Your task to perform on an android device: change timer sound Image 0: 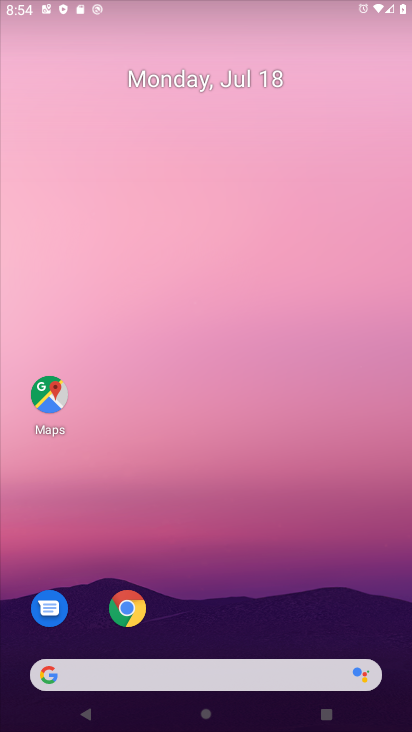
Step 0: press home button
Your task to perform on an android device: change timer sound Image 1: 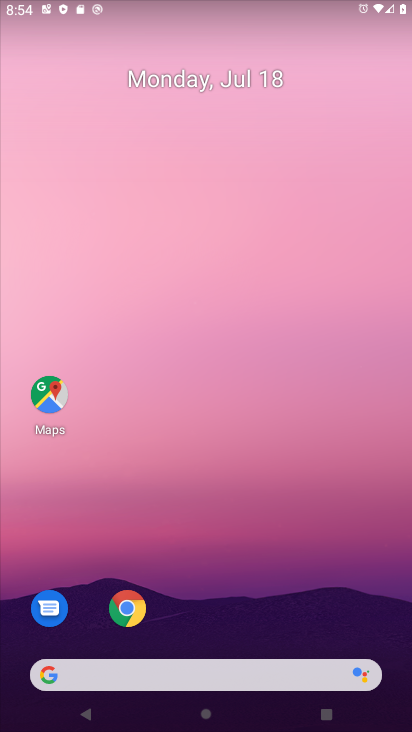
Step 1: drag from (243, 726) to (243, 243)
Your task to perform on an android device: change timer sound Image 2: 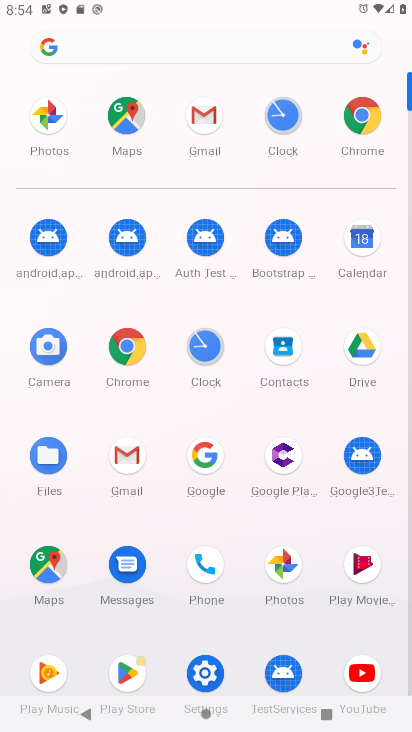
Step 2: click (202, 355)
Your task to perform on an android device: change timer sound Image 3: 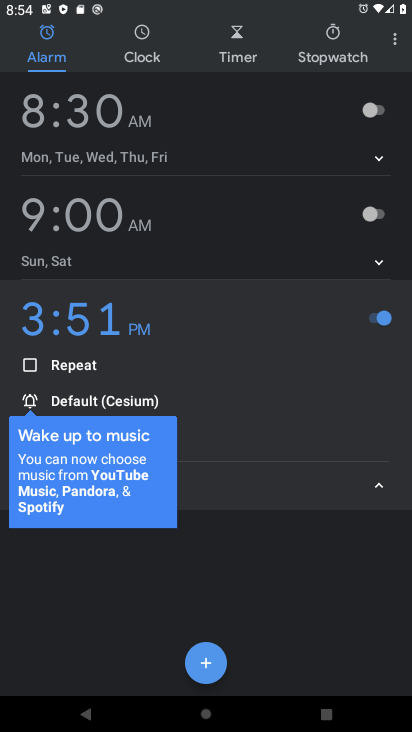
Step 3: click (395, 45)
Your task to perform on an android device: change timer sound Image 4: 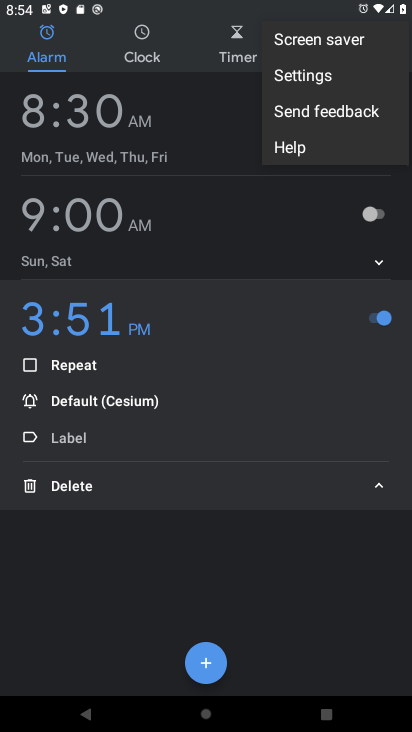
Step 4: click (303, 77)
Your task to perform on an android device: change timer sound Image 5: 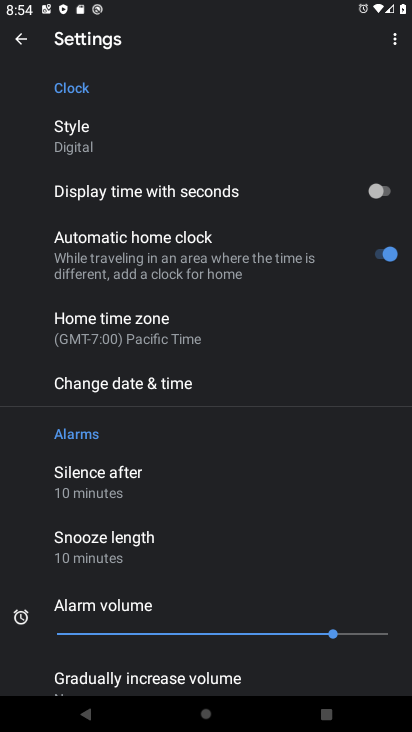
Step 5: drag from (215, 571) to (235, 334)
Your task to perform on an android device: change timer sound Image 6: 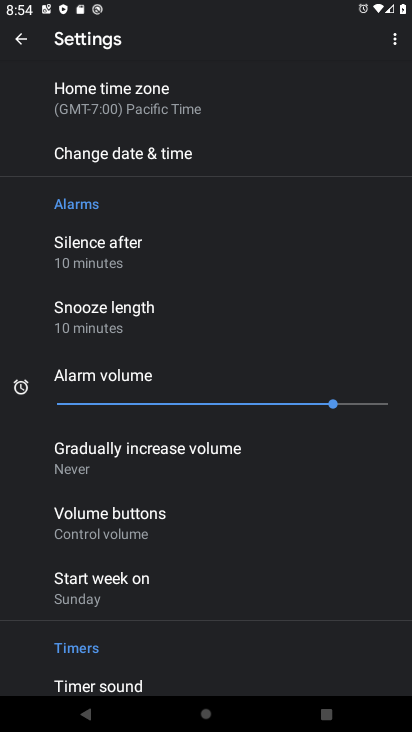
Step 6: click (115, 677)
Your task to perform on an android device: change timer sound Image 7: 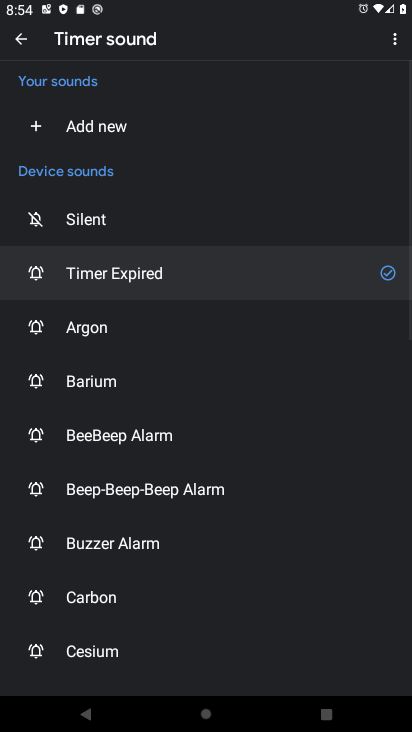
Step 7: click (92, 594)
Your task to perform on an android device: change timer sound Image 8: 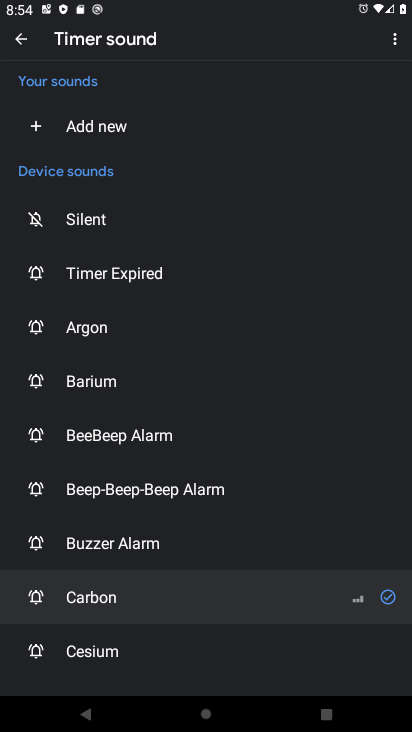
Step 8: task complete